Your task to perform on an android device: Is it going to rain today? Image 0: 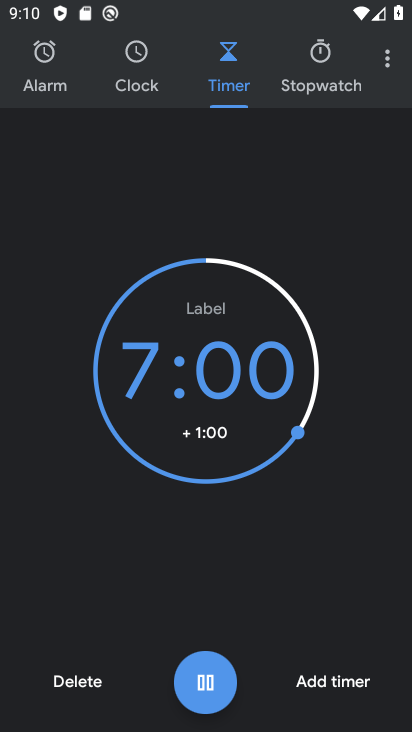
Step 0: press home button
Your task to perform on an android device: Is it going to rain today? Image 1: 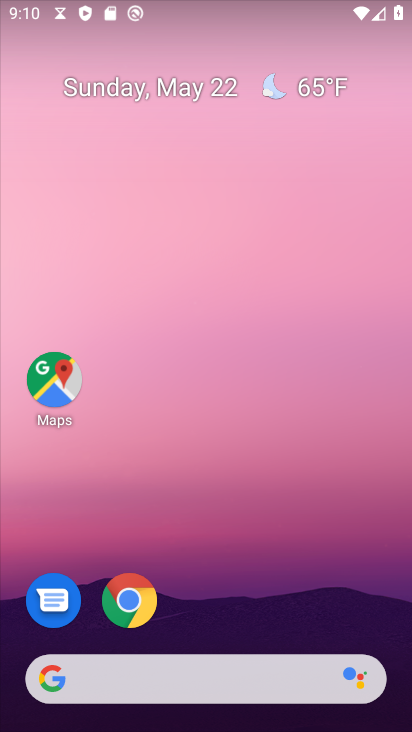
Step 1: drag from (214, 606) to (208, 87)
Your task to perform on an android device: Is it going to rain today? Image 2: 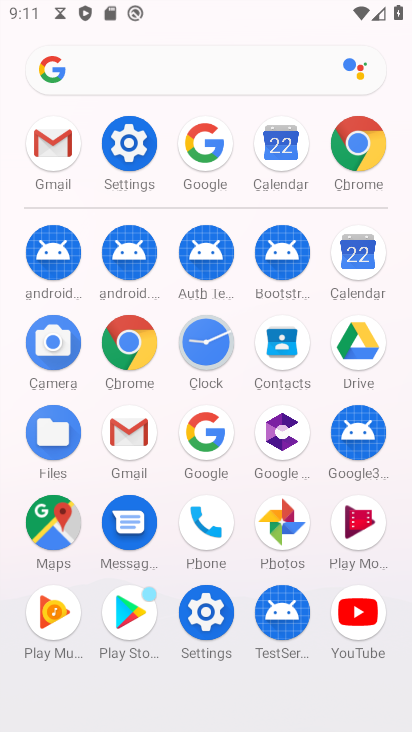
Step 2: drag from (263, 610) to (244, 237)
Your task to perform on an android device: Is it going to rain today? Image 3: 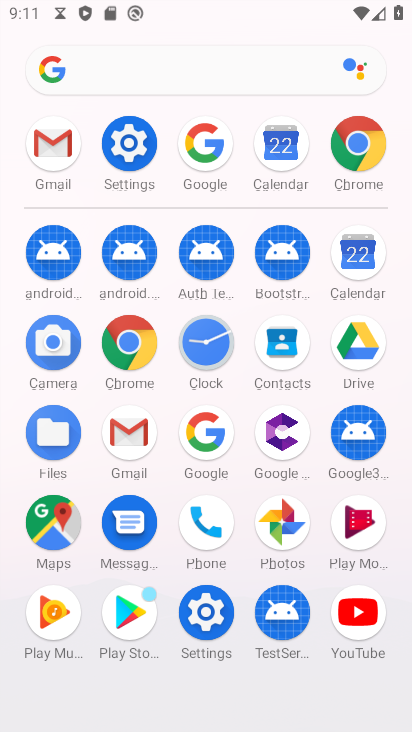
Step 3: click (201, 458)
Your task to perform on an android device: Is it going to rain today? Image 4: 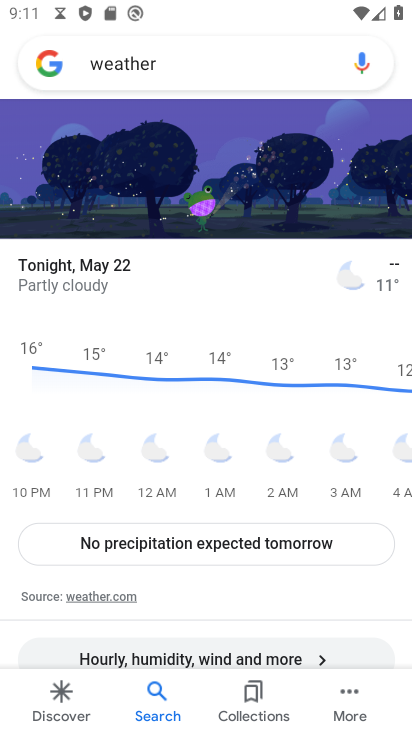
Step 4: task complete